Your task to perform on an android device: change the upload size in google photos Image 0: 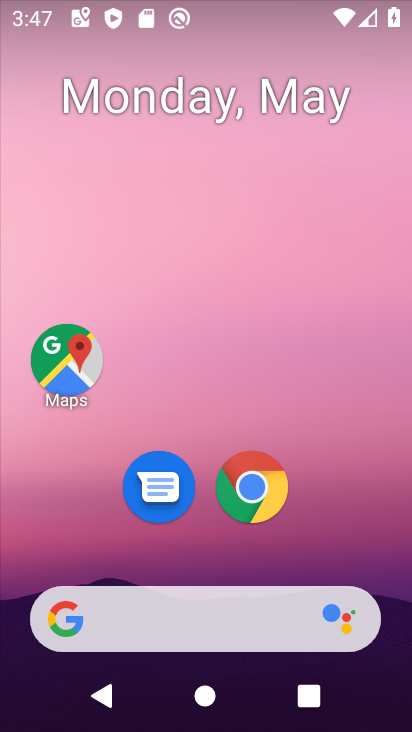
Step 0: drag from (229, 587) to (254, 138)
Your task to perform on an android device: change the upload size in google photos Image 1: 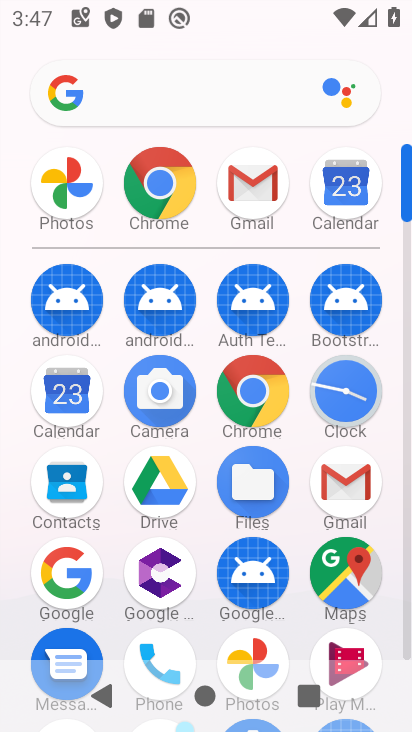
Step 1: click (245, 641)
Your task to perform on an android device: change the upload size in google photos Image 2: 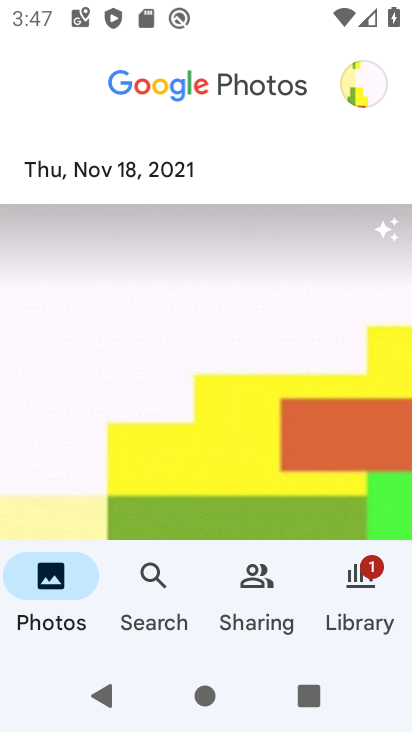
Step 2: click (361, 89)
Your task to perform on an android device: change the upload size in google photos Image 3: 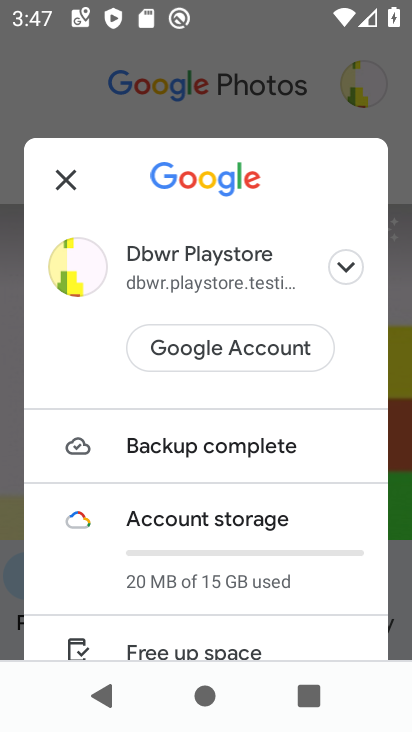
Step 3: drag from (210, 593) to (240, 255)
Your task to perform on an android device: change the upload size in google photos Image 4: 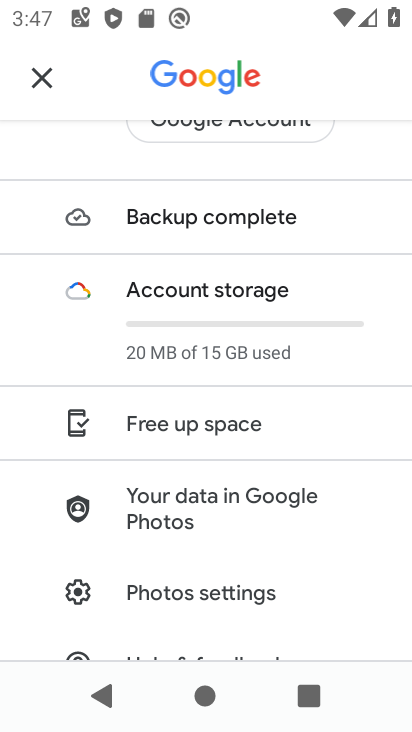
Step 4: click (181, 587)
Your task to perform on an android device: change the upload size in google photos Image 5: 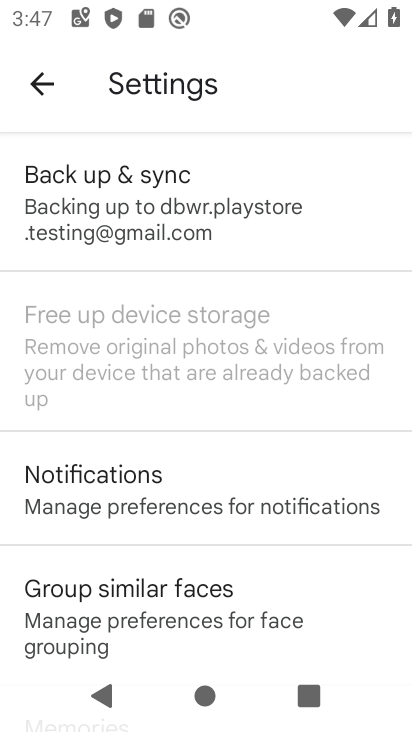
Step 5: click (113, 182)
Your task to perform on an android device: change the upload size in google photos Image 6: 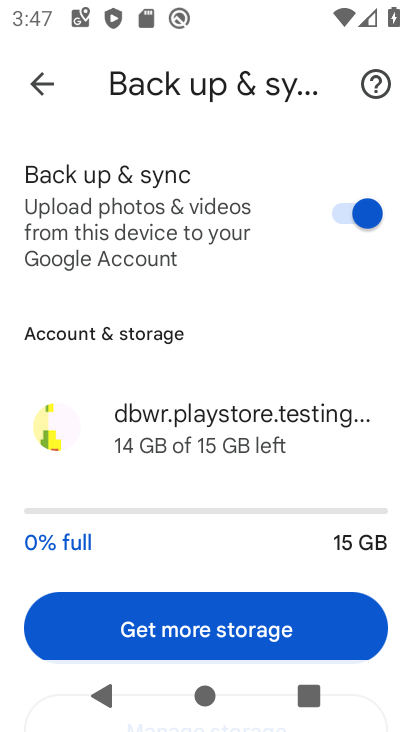
Step 6: drag from (200, 331) to (203, 178)
Your task to perform on an android device: change the upload size in google photos Image 7: 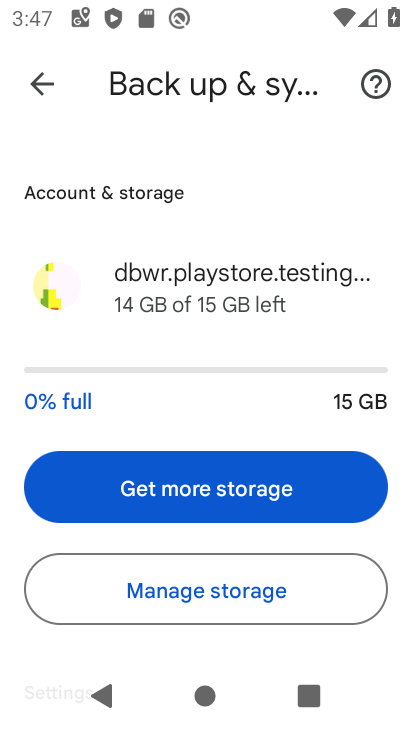
Step 7: drag from (192, 634) to (206, 305)
Your task to perform on an android device: change the upload size in google photos Image 8: 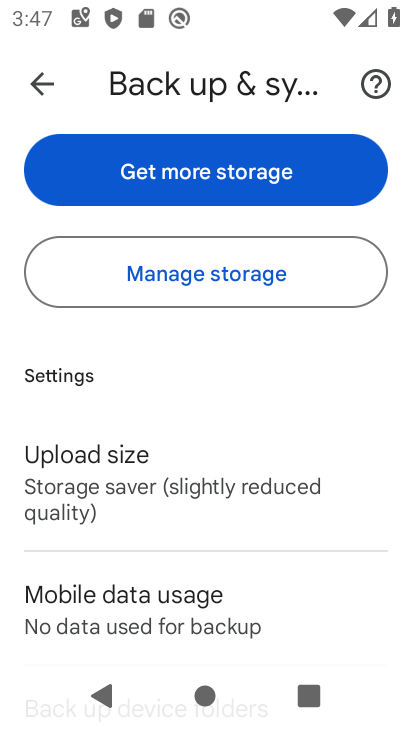
Step 8: click (84, 455)
Your task to perform on an android device: change the upload size in google photos Image 9: 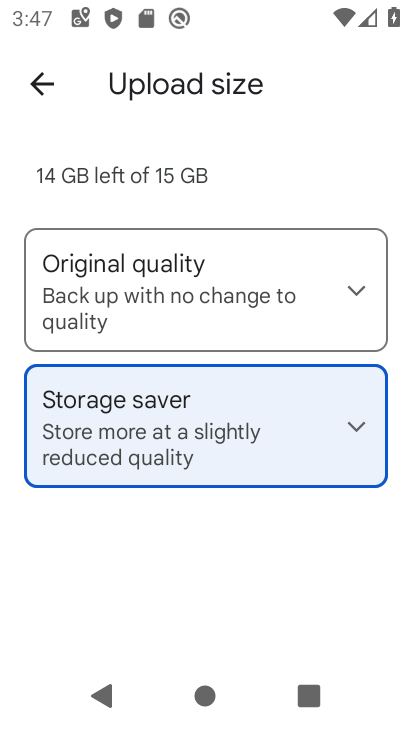
Step 9: click (118, 286)
Your task to perform on an android device: change the upload size in google photos Image 10: 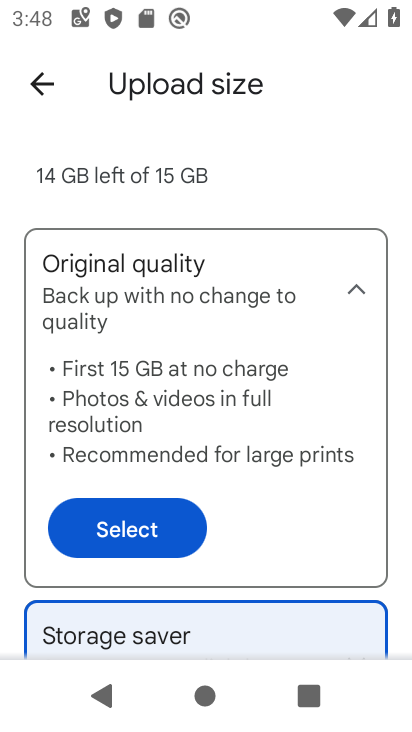
Step 10: click (116, 524)
Your task to perform on an android device: change the upload size in google photos Image 11: 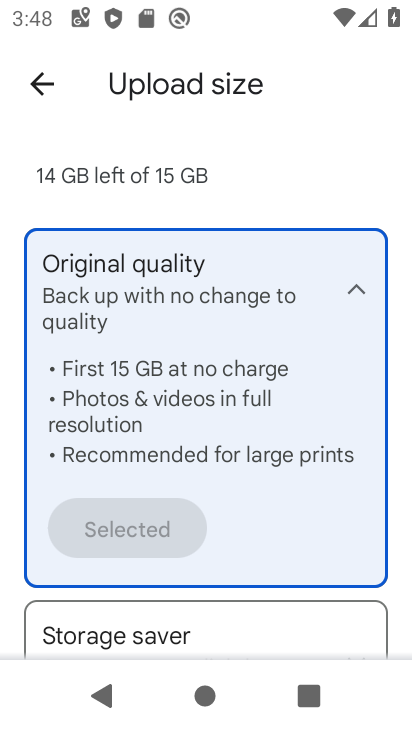
Step 11: task complete